Your task to perform on an android device: turn off picture-in-picture Image 0: 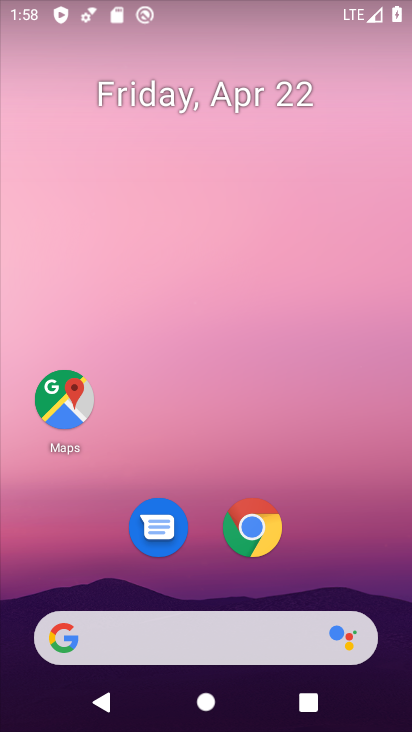
Step 0: drag from (328, 535) to (309, 203)
Your task to perform on an android device: turn off picture-in-picture Image 1: 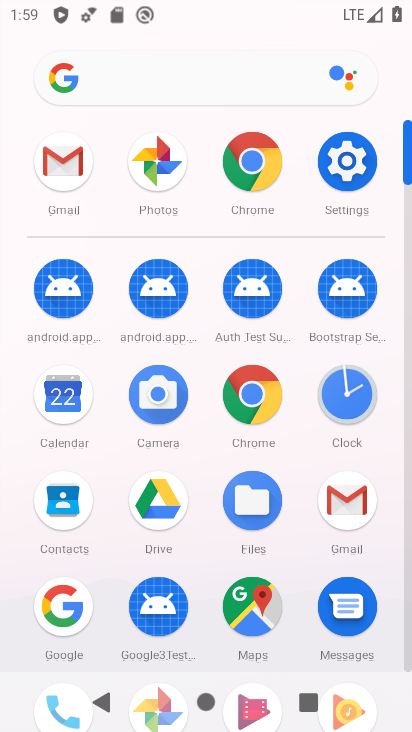
Step 1: click (347, 177)
Your task to perform on an android device: turn off picture-in-picture Image 2: 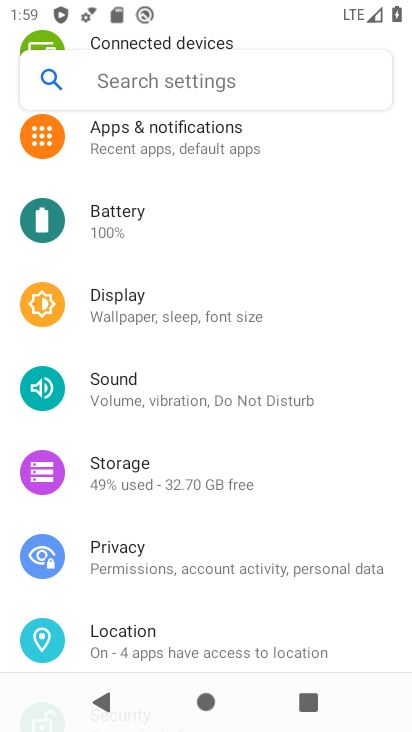
Step 2: click (162, 140)
Your task to perform on an android device: turn off picture-in-picture Image 3: 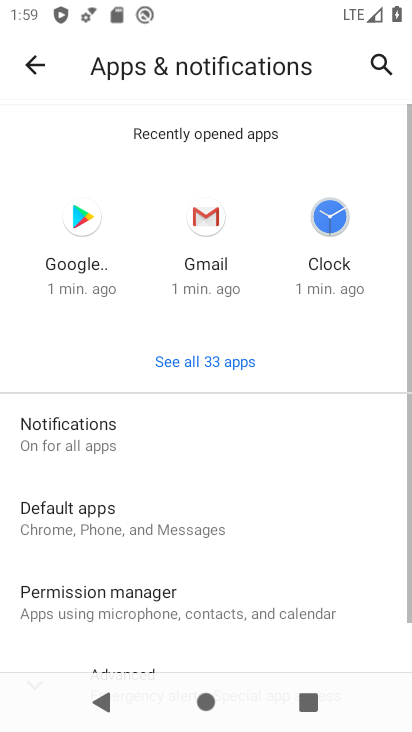
Step 3: drag from (208, 550) to (150, 184)
Your task to perform on an android device: turn off picture-in-picture Image 4: 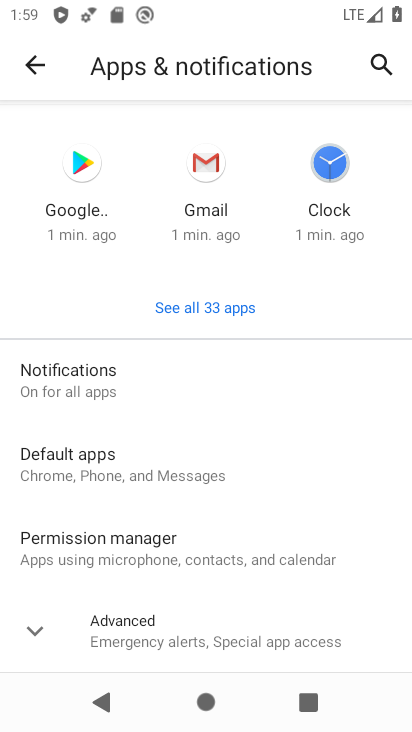
Step 4: click (150, 632)
Your task to perform on an android device: turn off picture-in-picture Image 5: 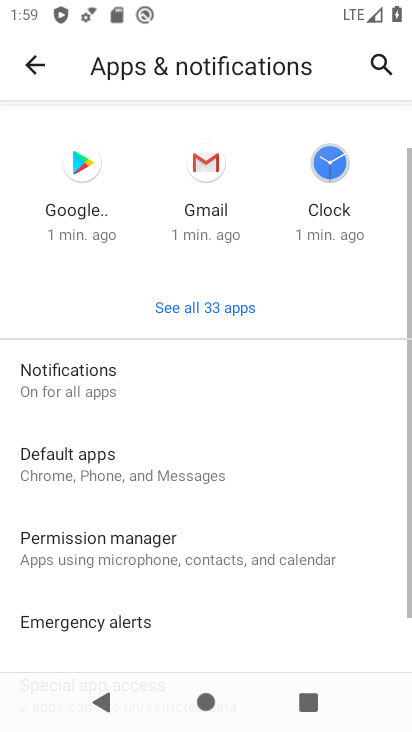
Step 5: drag from (132, 535) to (125, 187)
Your task to perform on an android device: turn off picture-in-picture Image 6: 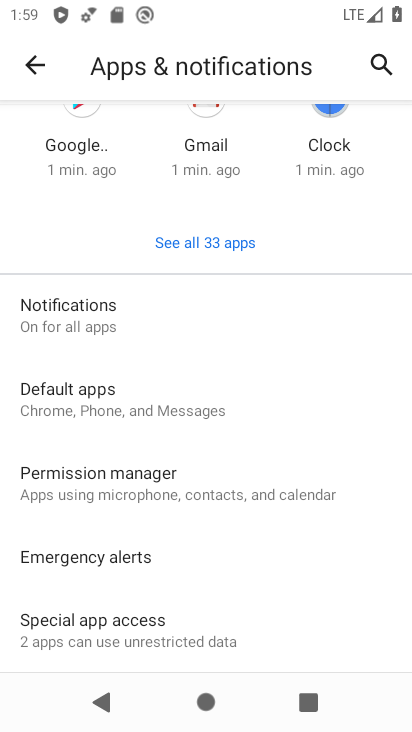
Step 6: click (102, 633)
Your task to perform on an android device: turn off picture-in-picture Image 7: 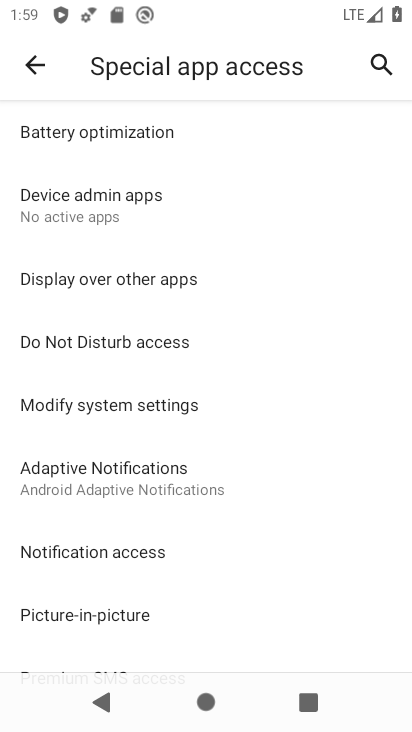
Step 7: click (65, 615)
Your task to perform on an android device: turn off picture-in-picture Image 8: 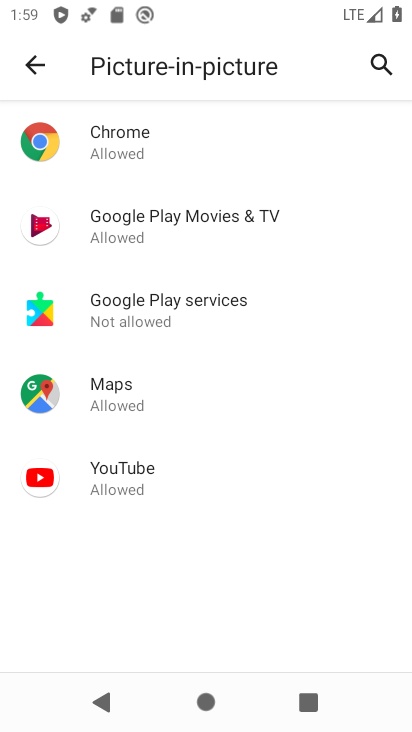
Step 8: click (125, 147)
Your task to perform on an android device: turn off picture-in-picture Image 9: 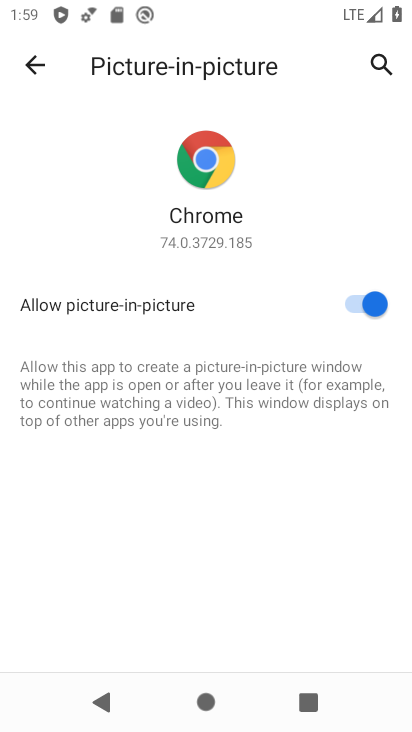
Step 9: click (375, 302)
Your task to perform on an android device: turn off picture-in-picture Image 10: 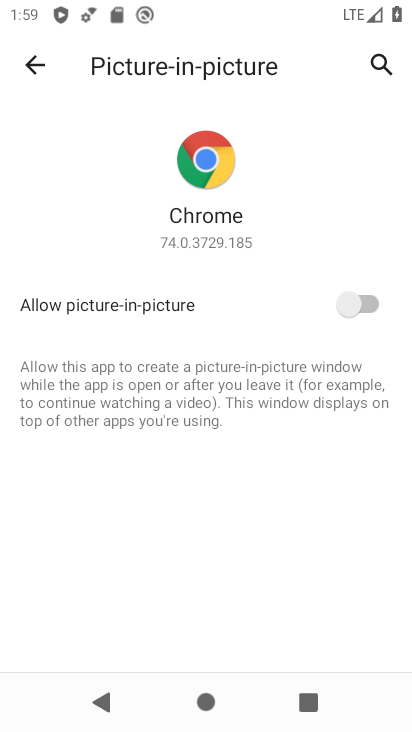
Step 10: task complete